Your task to perform on an android device: Toggle the flashlight Image 0: 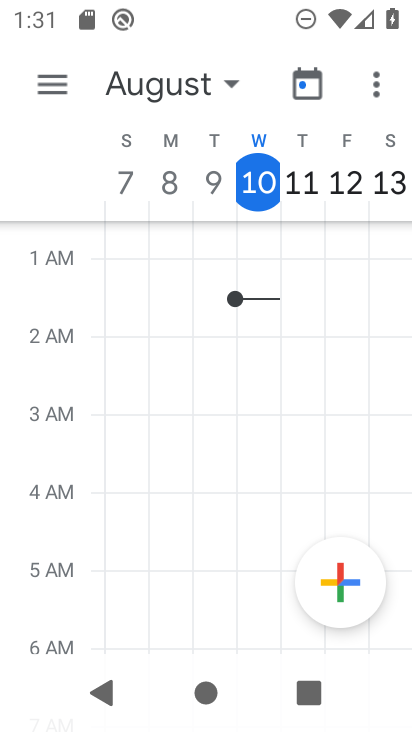
Step 0: press home button
Your task to perform on an android device: Toggle the flashlight Image 1: 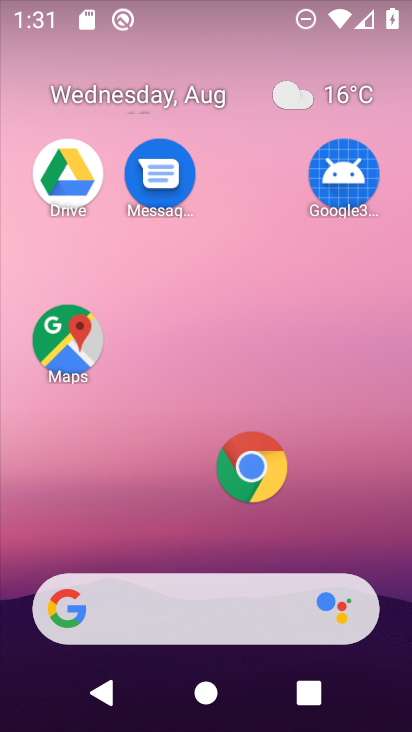
Step 1: drag from (221, 269) to (228, 181)
Your task to perform on an android device: Toggle the flashlight Image 2: 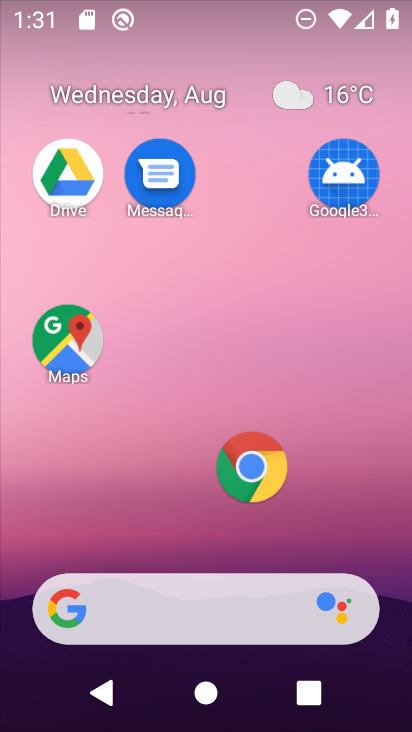
Step 2: drag from (155, 537) to (228, 171)
Your task to perform on an android device: Toggle the flashlight Image 3: 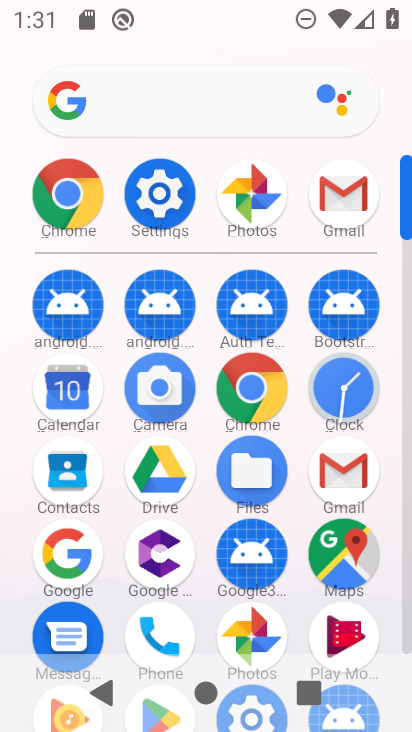
Step 3: click (176, 208)
Your task to perform on an android device: Toggle the flashlight Image 4: 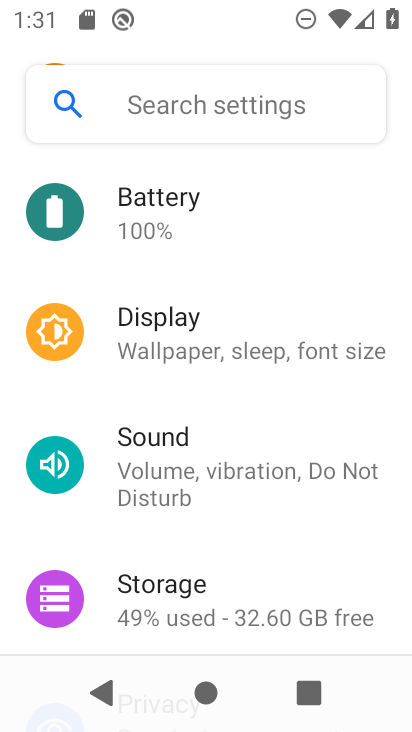
Step 4: task complete